Your task to perform on an android device: check battery use Image 0: 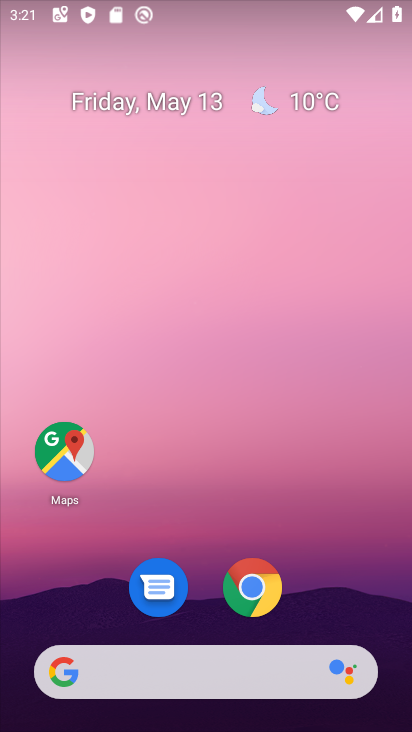
Step 0: drag from (203, 617) to (236, 4)
Your task to perform on an android device: check battery use Image 1: 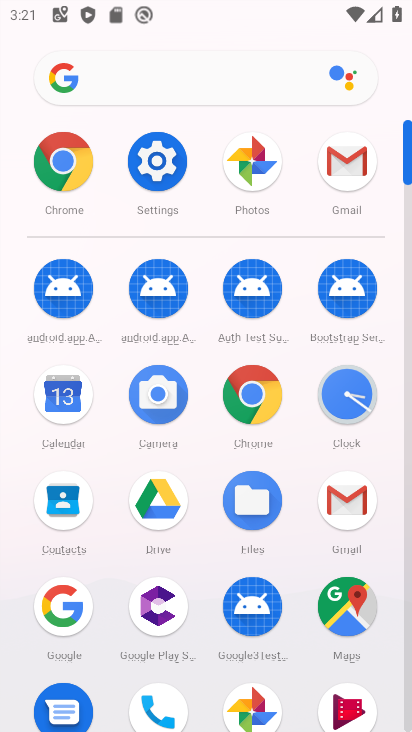
Step 1: click (143, 175)
Your task to perform on an android device: check battery use Image 2: 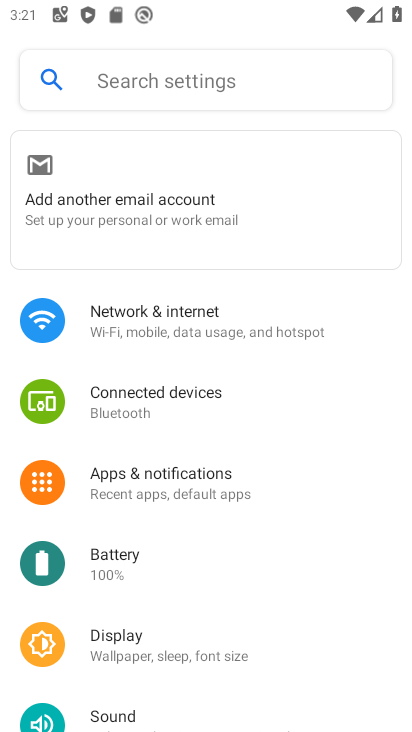
Step 2: drag from (195, 635) to (184, 436)
Your task to perform on an android device: check battery use Image 3: 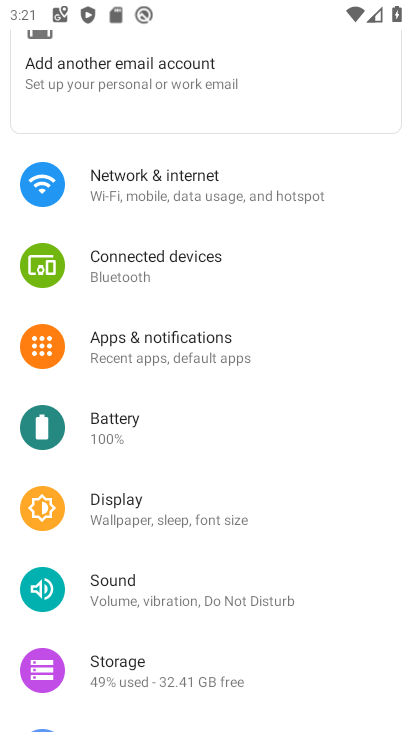
Step 3: click (93, 437)
Your task to perform on an android device: check battery use Image 4: 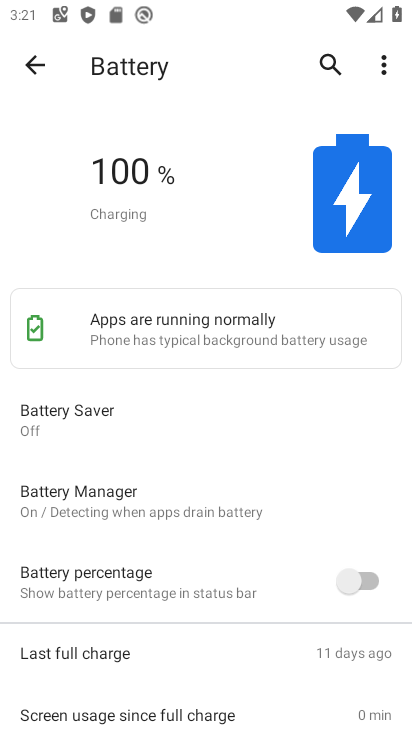
Step 4: click (383, 70)
Your task to perform on an android device: check battery use Image 5: 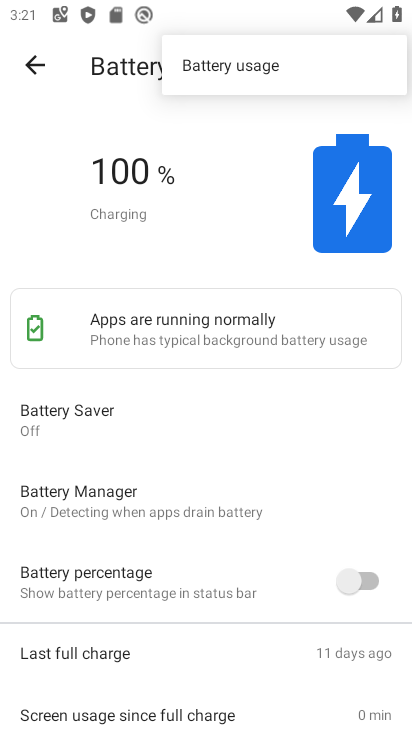
Step 5: click (285, 72)
Your task to perform on an android device: check battery use Image 6: 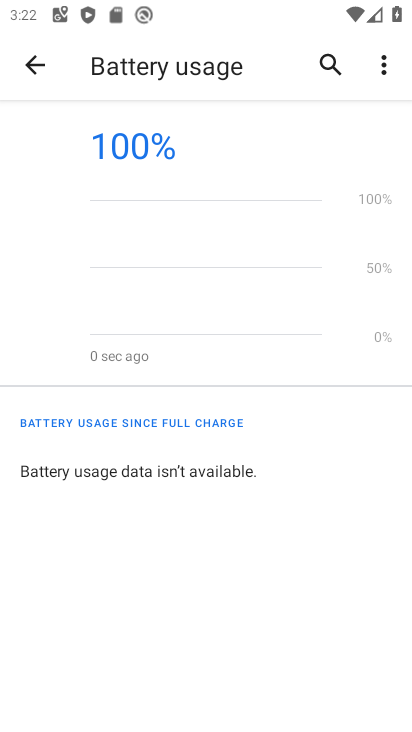
Step 6: task complete